Your task to perform on an android device: Go to network settings Image 0: 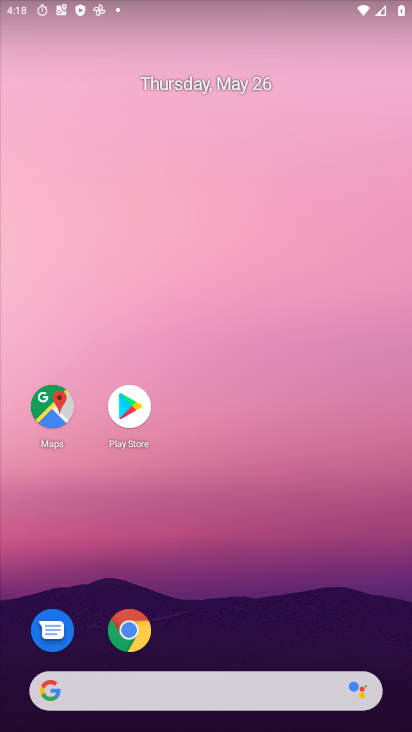
Step 0: drag from (236, 652) to (266, 184)
Your task to perform on an android device: Go to network settings Image 1: 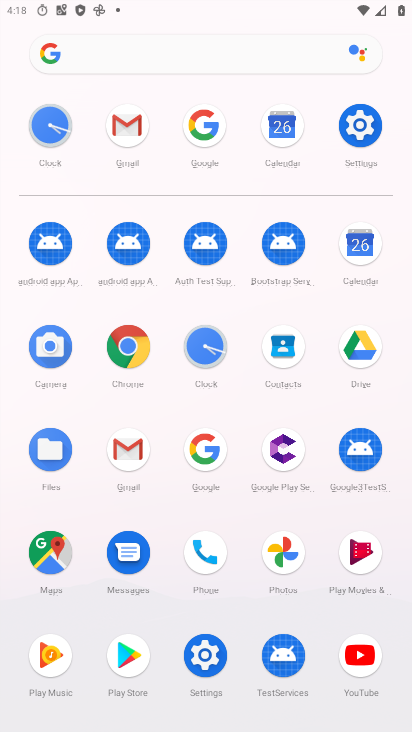
Step 1: drag from (218, 521) to (312, 230)
Your task to perform on an android device: Go to network settings Image 2: 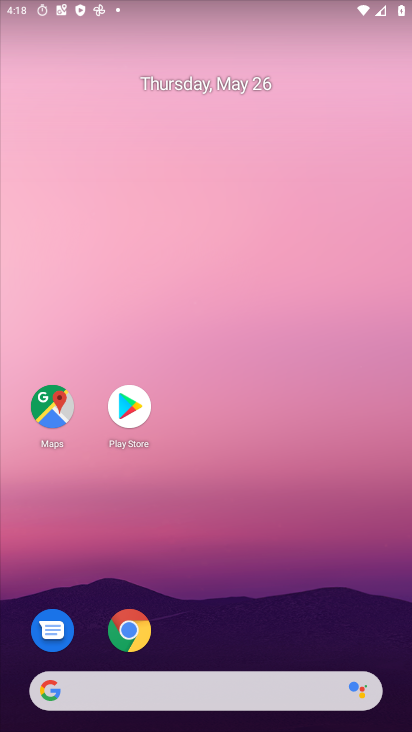
Step 2: drag from (222, 633) to (358, 40)
Your task to perform on an android device: Go to network settings Image 3: 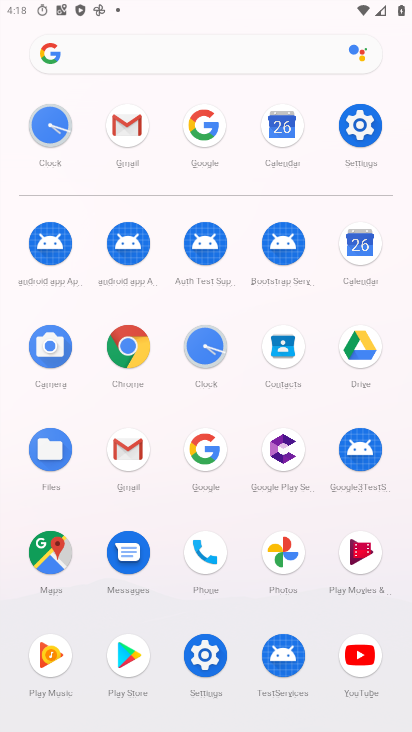
Step 3: click (366, 111)
Your task to perform on an android device: Go to network settings Image 4: 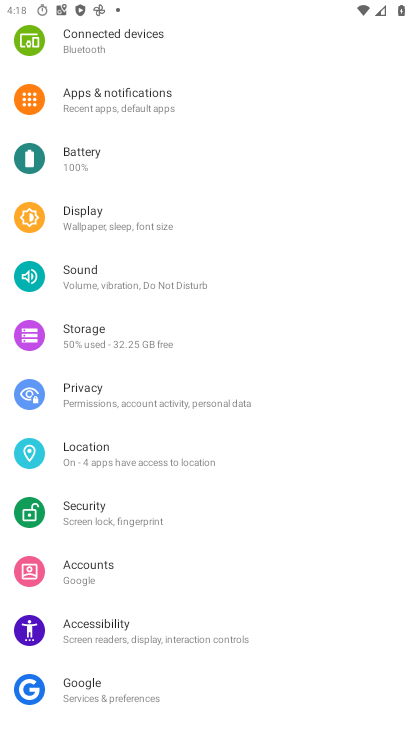
Step 4: drag from (148, 84) to (166, 455)
Your task to perform on an android device: Go to network settings Image 5: 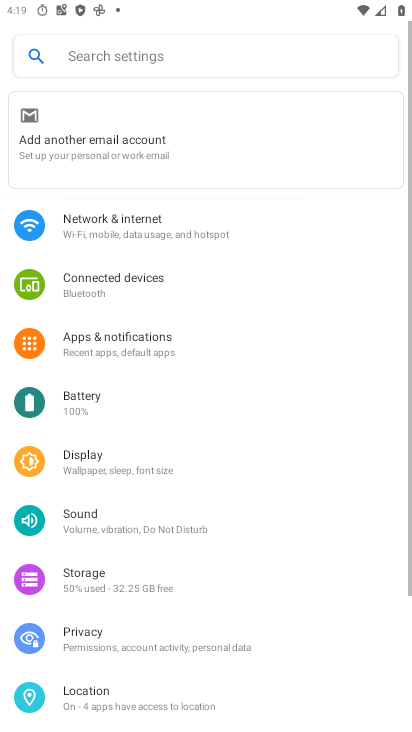
Step 5: drag from (249, 198) to (187, 506)
Your task to perform on an android device: Go to network settings Image 6: 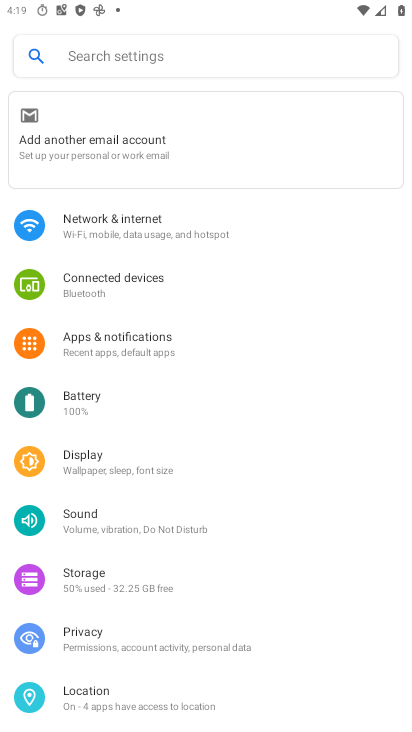
Step 6: click (180, 223)
Your task to perform on an android device: Go to network settings Image 7: 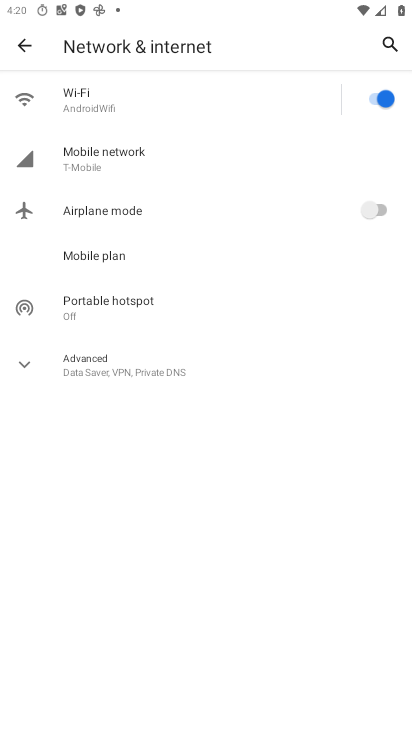
Step 7: task complete